Your task to perform on an android device: check storage Image 0: 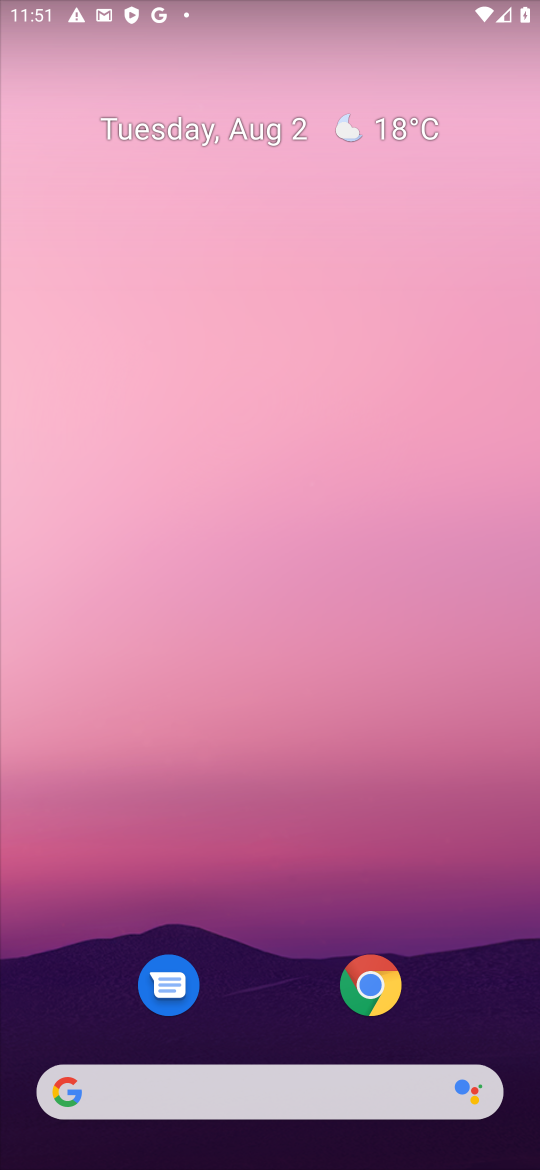
Step 0: drag from (320, 1015) to (334, 162)
Your task to perform on an android device: check storage Image 1: 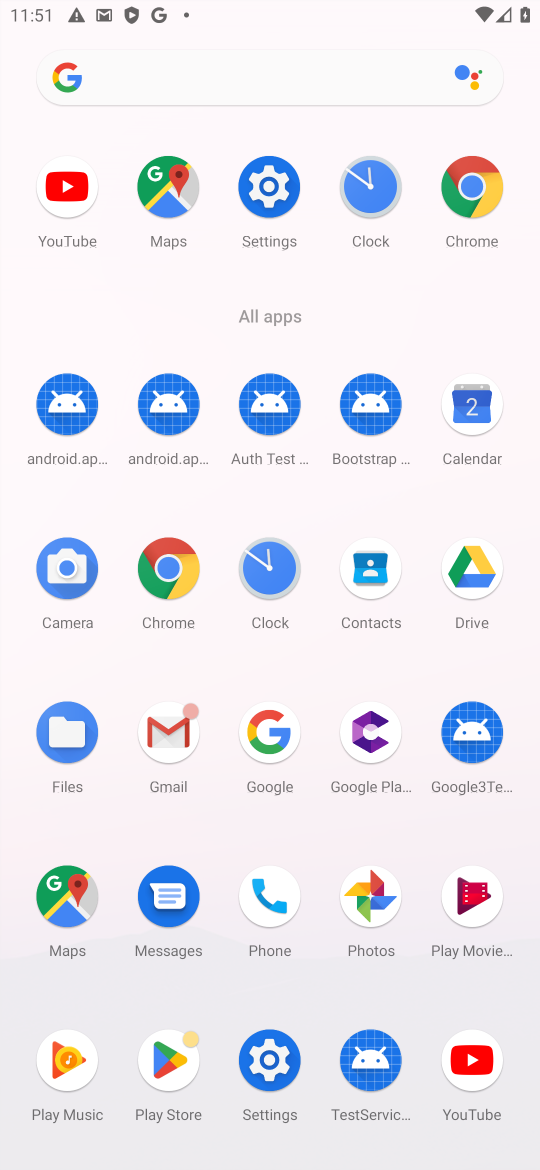
Step 1: click (288, 188)
Your task to perform on an android device: check storage Image 2: 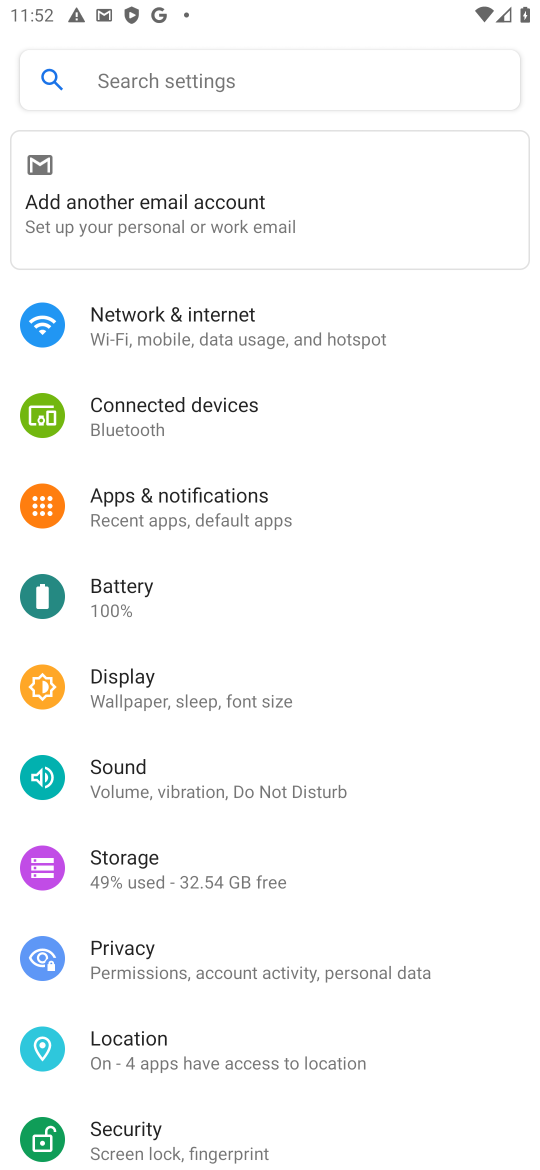
Step 2: click (213, 886)
Your task to perform on an android device: check storage Image 3: 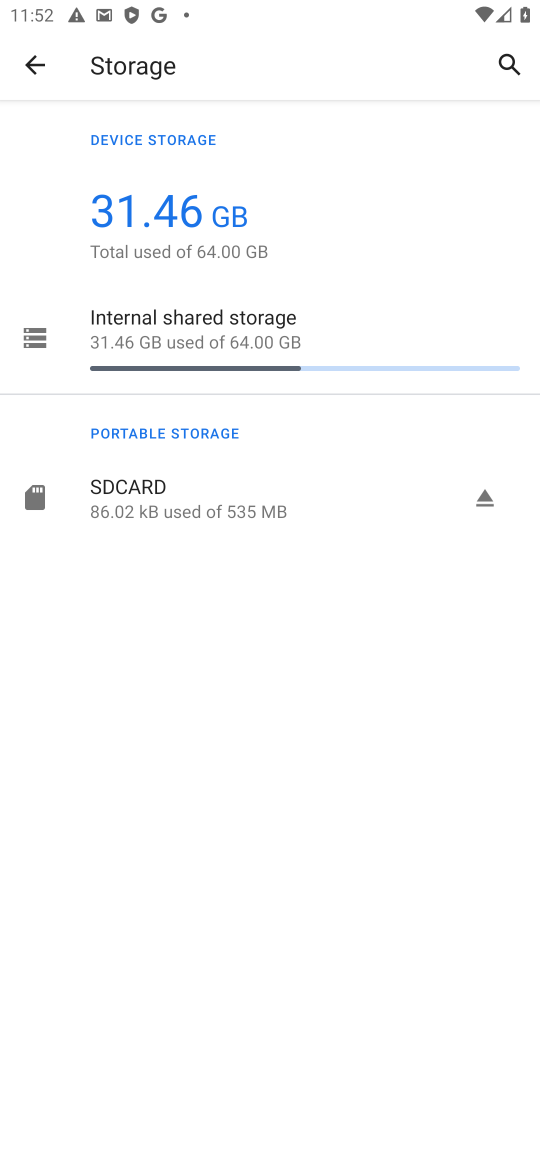
Step 3: task complete